Your task to perform on an android device: toggle show notifications on the lock screen Image 0: 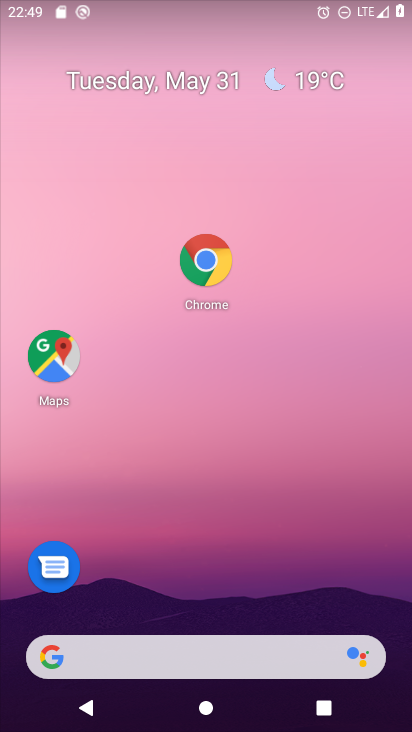
Step 0: drag from (238, 639) to (327, 320)
Your task to perform on an android device: toggle show notifications on the lock screen Image 1: 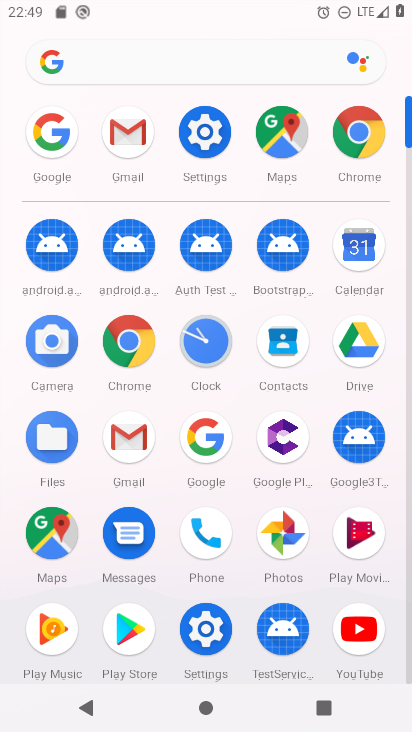
Step 1: click (200, 132)
Your task to perform on an android device: toggle show notifications on the lock screen Image 2: 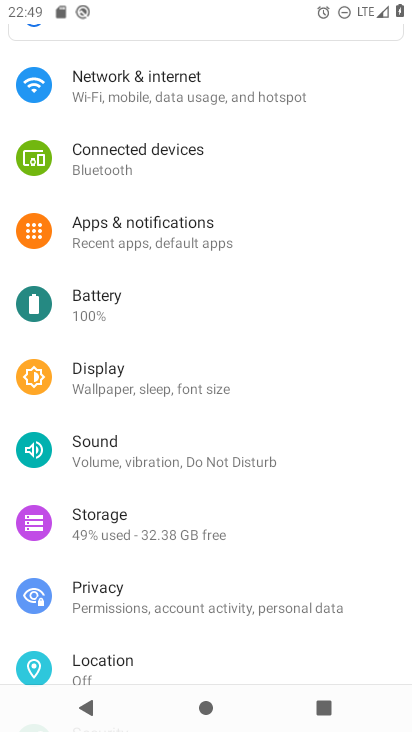
Step 2: click (71, 614)
Your task to perform on an android device: toggle show notifications on the lock screen Image 3: 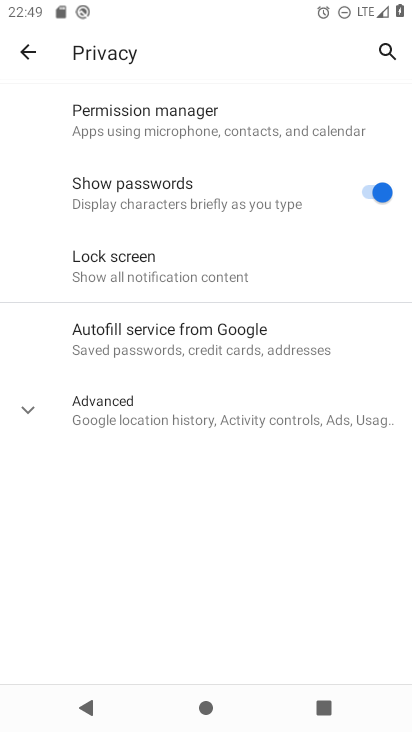
Step 3: click (137, 267)
Your task to perform on an android device: toggle show notifications on the lock screen Image 4: 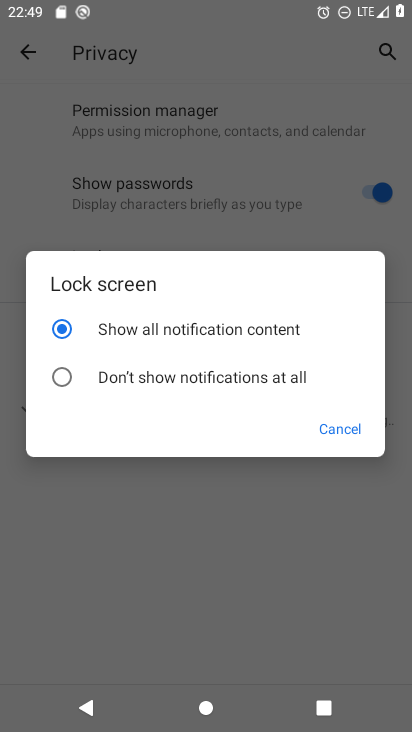
Step 4: click (196, 376)
Your task to perform on an android device: toggle show notifications on the lock screen Image 5: 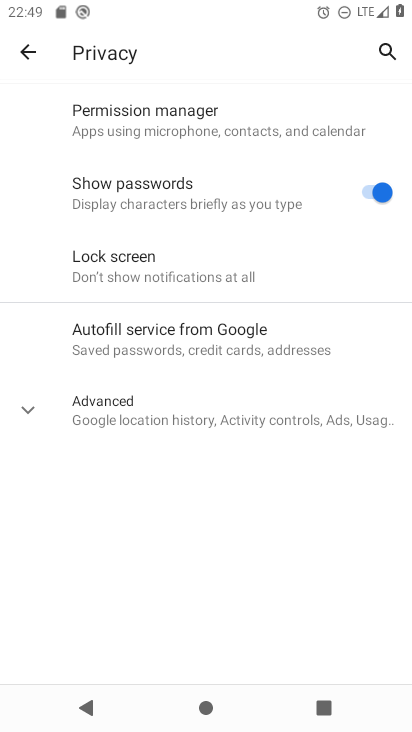
Step 5: task complete